Your task to perform on an android device: Search for "The Dispatcher" by John Scalzi on Goodreads Image 0: 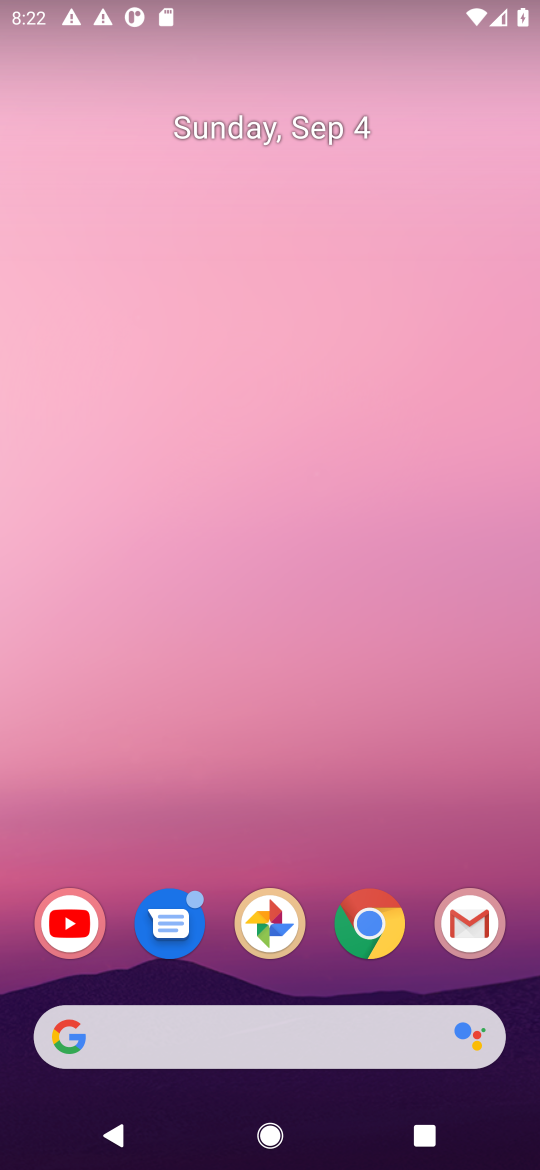
Step 0: click (379, 923)
Your task to perform on an android device: Search for "The Dispatcher" by John Scalzi on Goodreads Image 1: 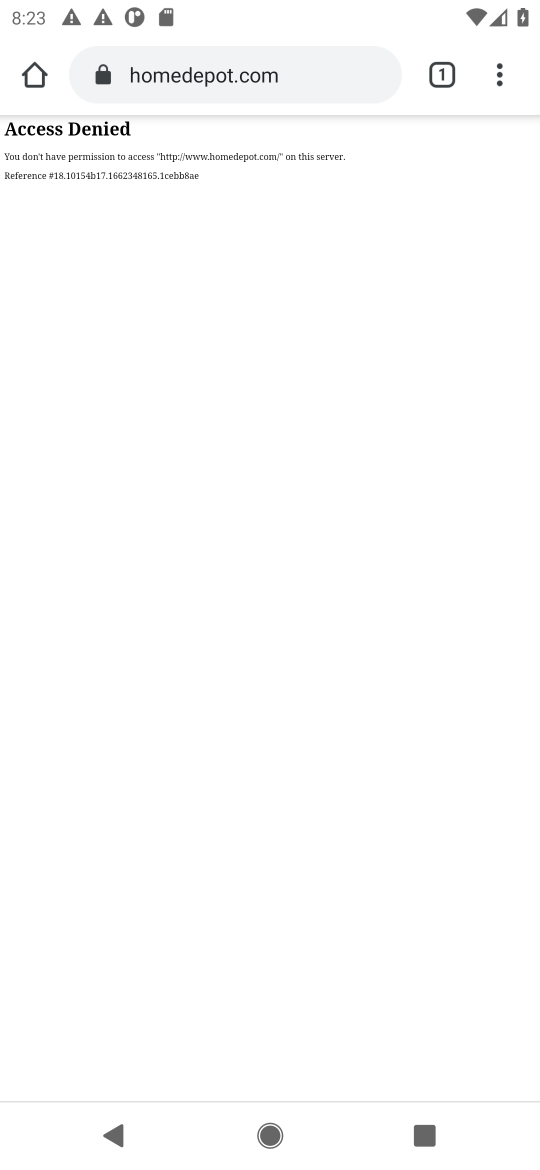
Step 1: click (273, 68)
Your task to perform on an android device: Search for "The Dispatcher" by John Scalzi on Goodreads Image 2: 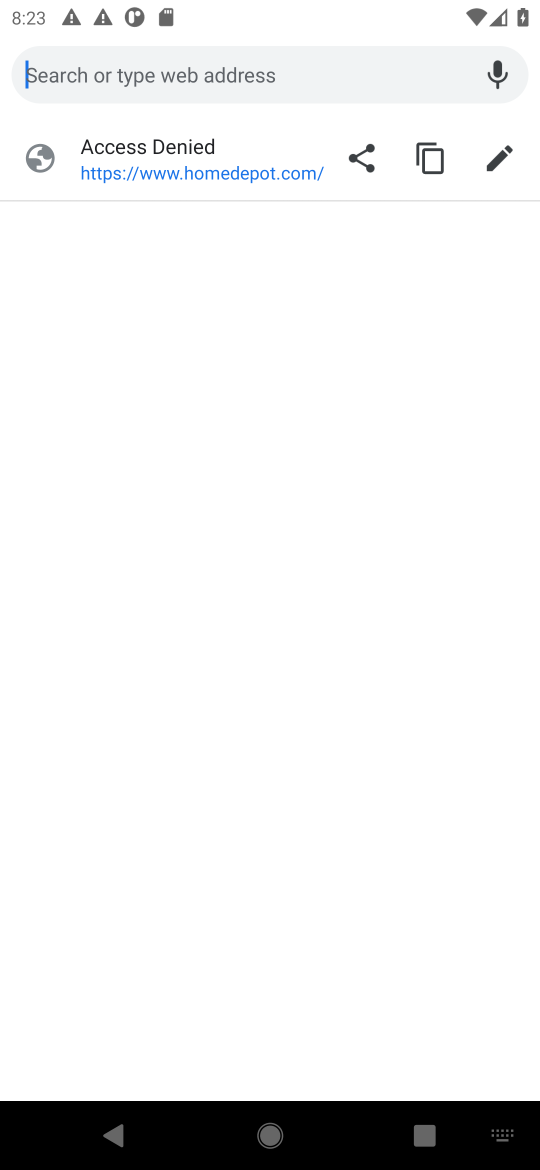
Step 2: type "goodreads"
Your task to perform on an android device: Search for "The Dispatcher" by John Scalzi on Goodreads Image 3: 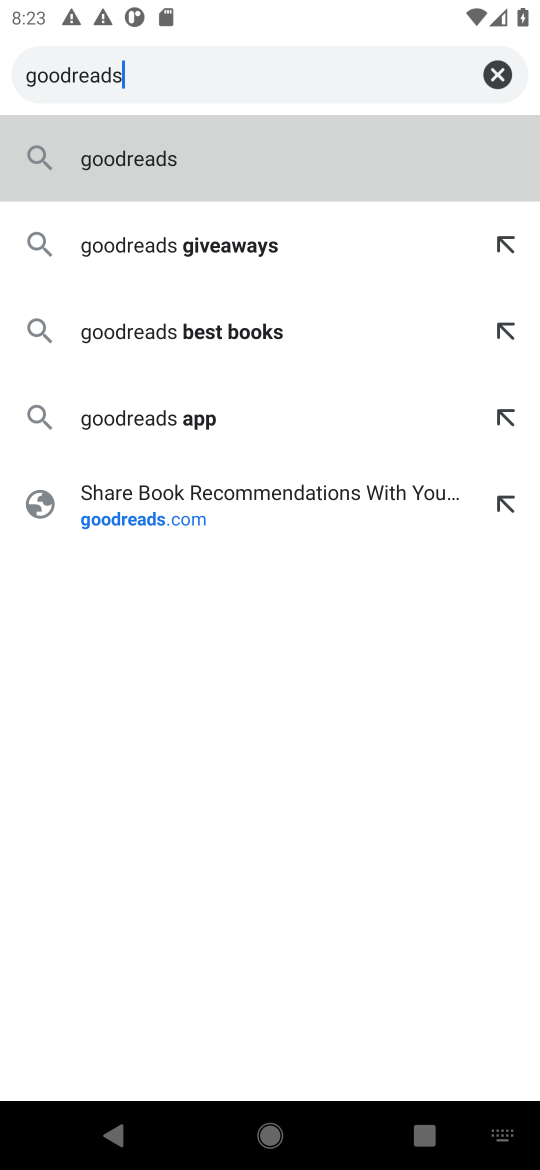
Step 3: click (134, 151)
Your task to perform on an android device: Search for "The Dispatcher" by John Scalzi on Goodreads Image 4: 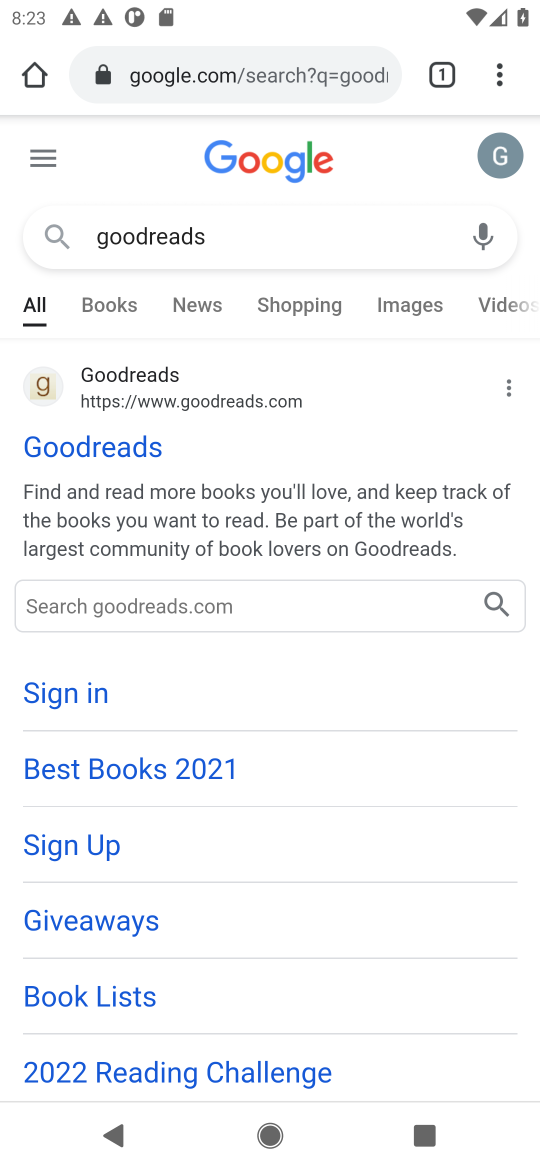
Step 4: click (127, 445)
Your task to perform on an android device: Search for "The Dispatcher" by John Scalzi on Goodreads Image 5: 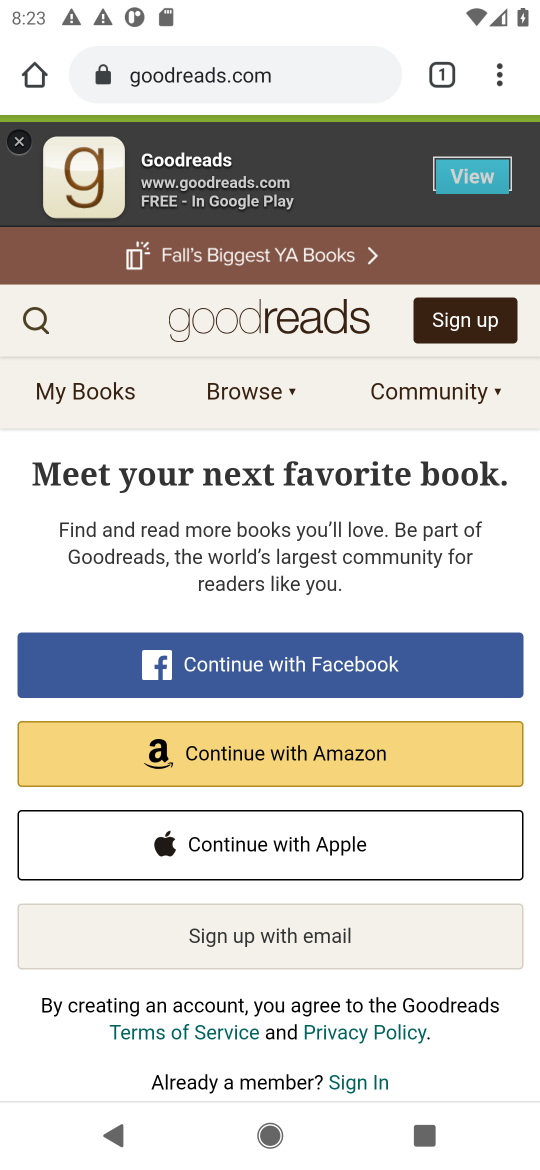
Step 5: click (37, 327)
Your task to perform on an android device: Search for "The Dispatcher" by John Scalzi on Goodreads Image 6: 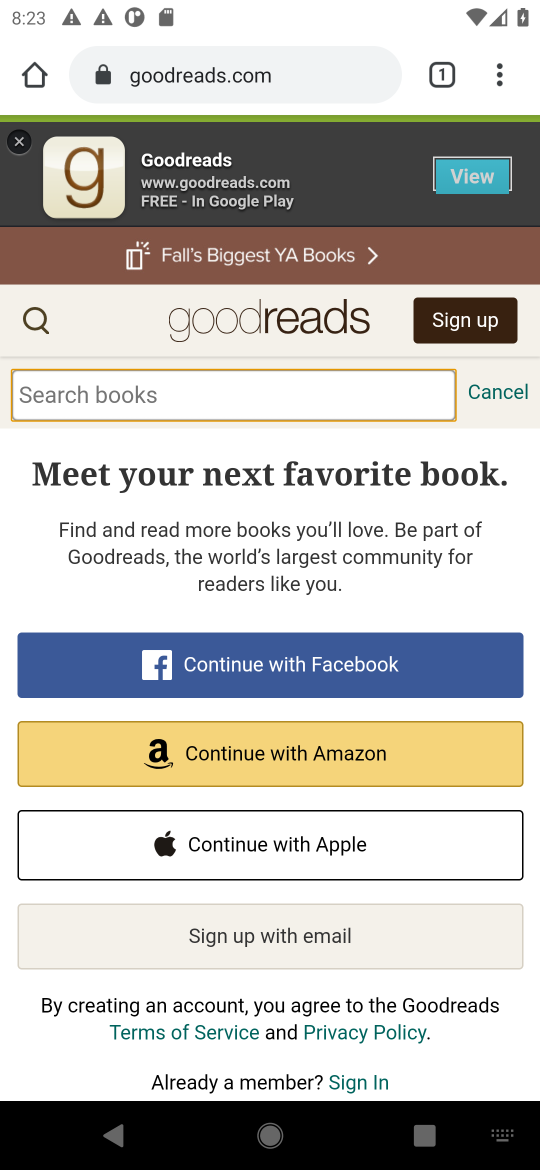
Step 6: type "the dispatcher by john scalzi"
Your task to perform on an android device: Search for "The Dispatcher" by John Scalzi on Goodreads Image 7: 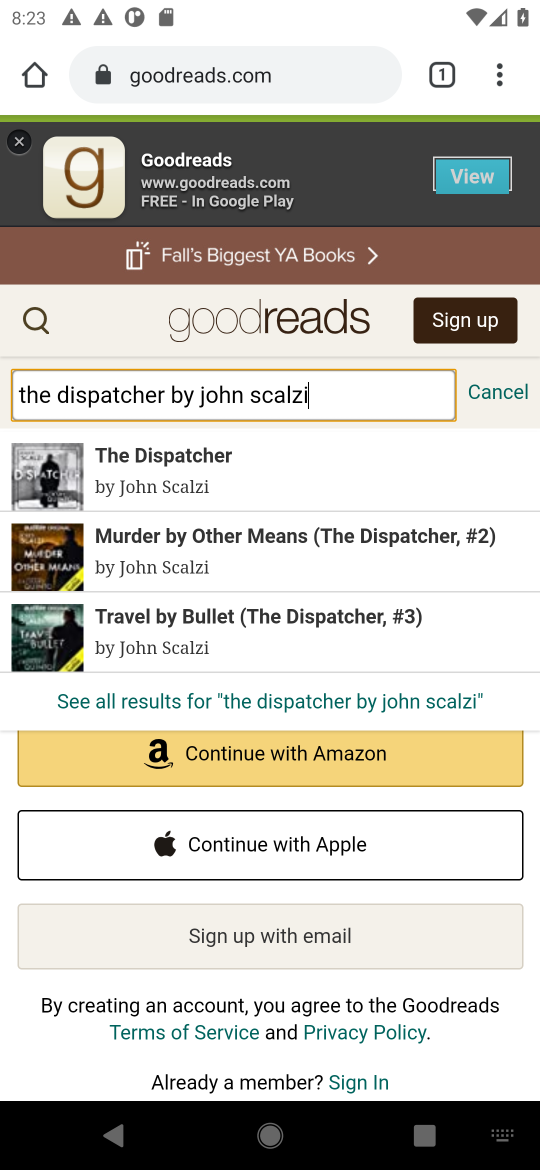
Step 7: click (366, 460)
Your task to perform on an android device: Search for "The Dispatcher" by John Scalzi on Goodreads Image 8: 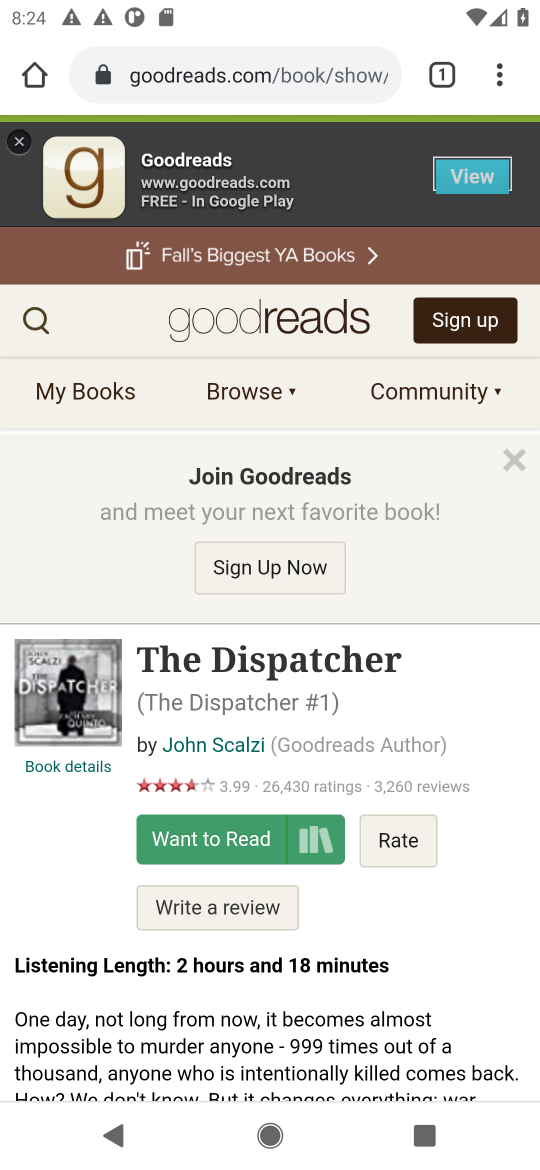
Step 8: task complete